Your task to perform on an android device: What's the weather going to be tomorrow? Image 0: 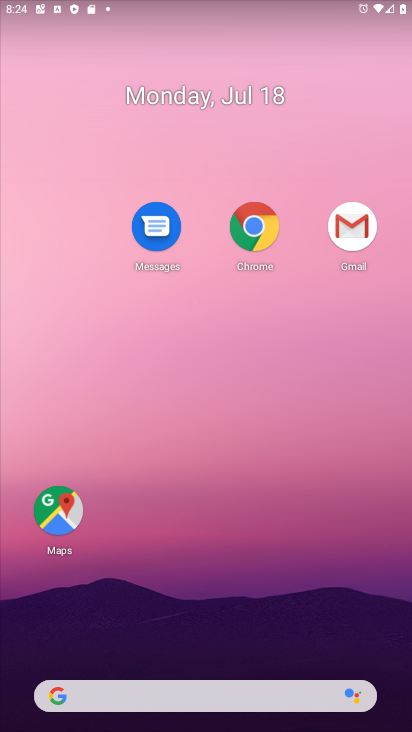
Step 0: press home button
Your task to perform on an android device: What's the weather going to be tomorrow? Image 1: 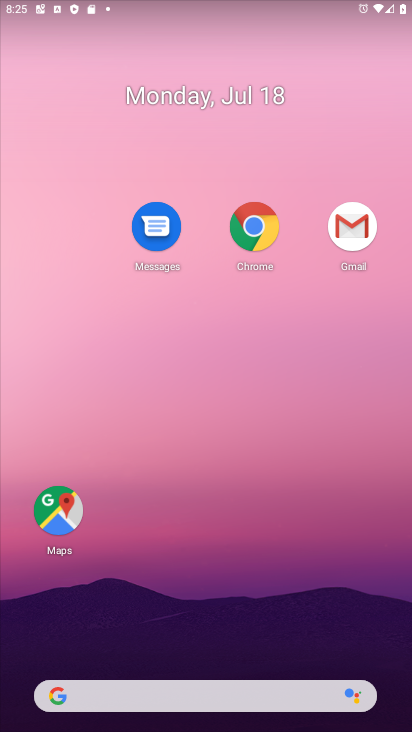
Step 1: drag from (22, 352) to (390, 429)
Your task to perform on an android device: What's the weather going to be tomorrow? Image 2: 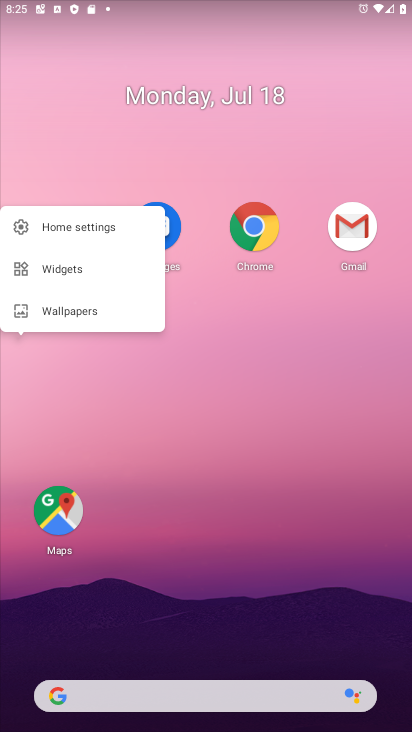
Step 2: drag from (43, 378) to (399, 440)
Your task to perform on an android device: What's the weather going to be tomorrow? Image 3: 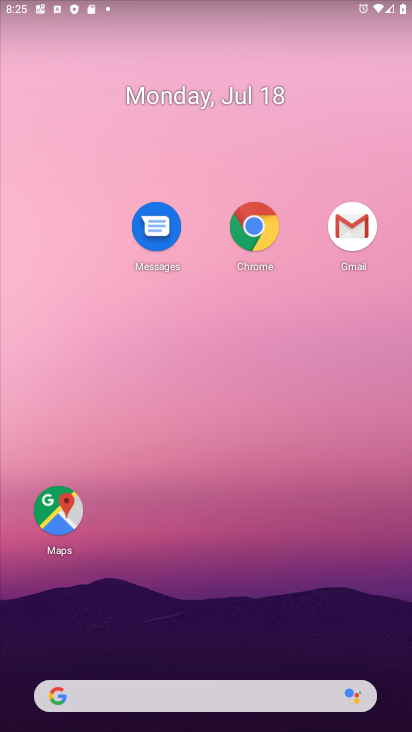
Step 3: drag from (74, 379) to (393, 389)
Your task to perform on an android device: What's the weather going to be tomorrow? Image 4: 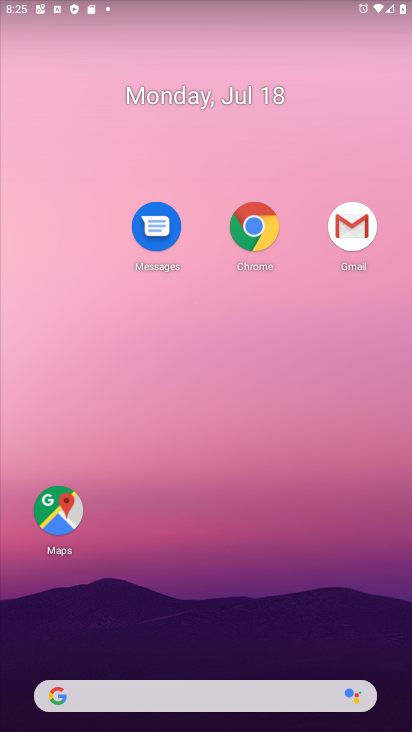
Step 4: drag from (15, 367) to (408, 425)
Your task to perform on an android device: What's the weather going to be tomorrow? Image 5: 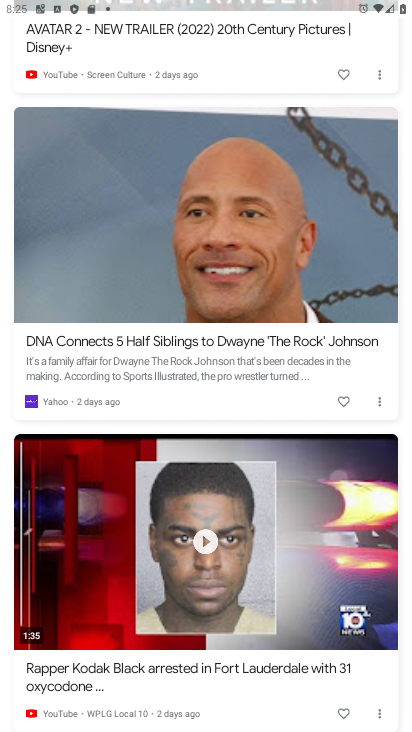
Step 5: drag from (225, 301) to (288, 731)
Your task to perform on an android device: What's the weather going to be tomorrow? Image 6: 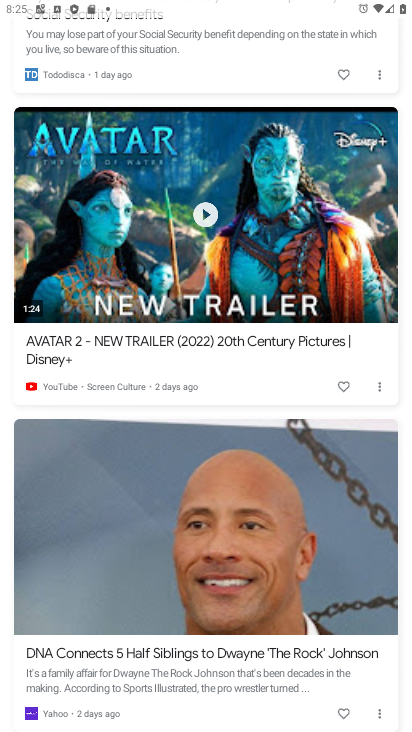
Step 6: drag from (233, 105) to (198, 720)
Your task to perform on an android device: What's the weather going to be tomorrow? Image 7: 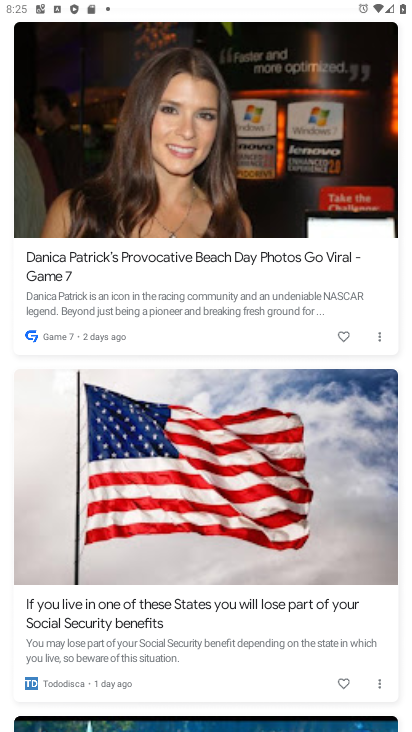
Step 7: drag from (237, 91) to (256, 731)
Your task to perform on an android device: What's the weather going to be tomorrow? Image 8: 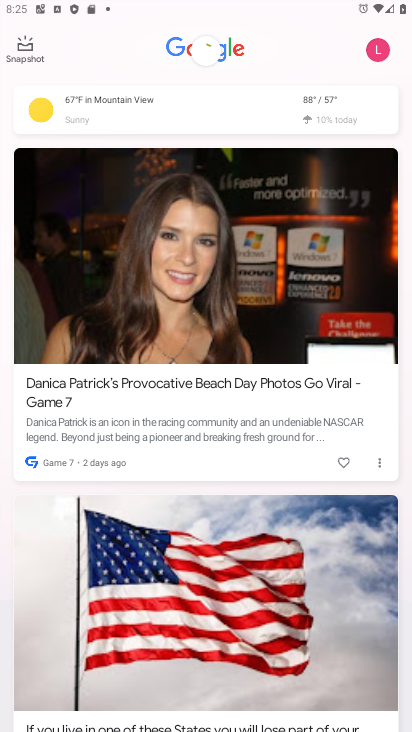
Step 8: click (304, 107)
Your task to perform on an android device: What's the weather going to be tomorrow? Image 9: 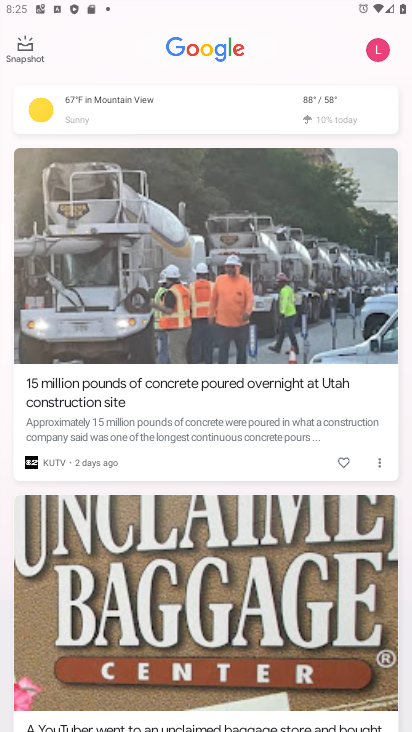
Step 9: click (299, 103)
Your task to perform on an android device: What's the weather going to be tomorrow? Image 10: 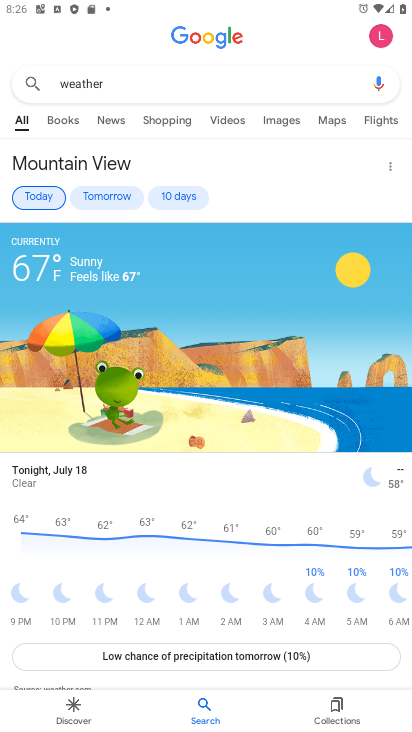
Step 10: click (108, 190)
Your task to perform on an android device: What's the weather going to be tomorrow? Image 11: 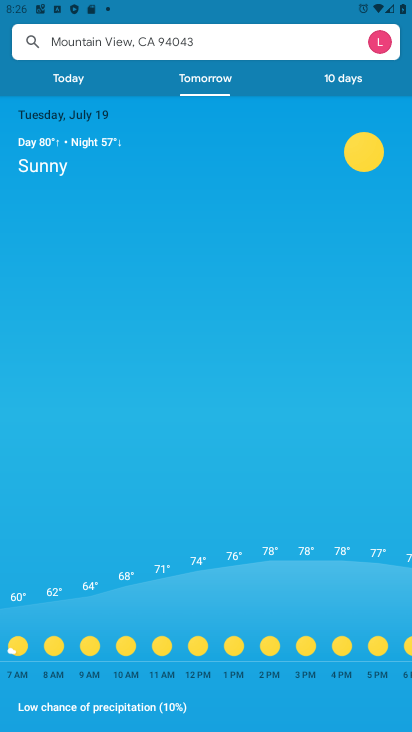
Step 11: task complete